Your task to perform on an android device: search for starred emails in the gmail app Image 0: 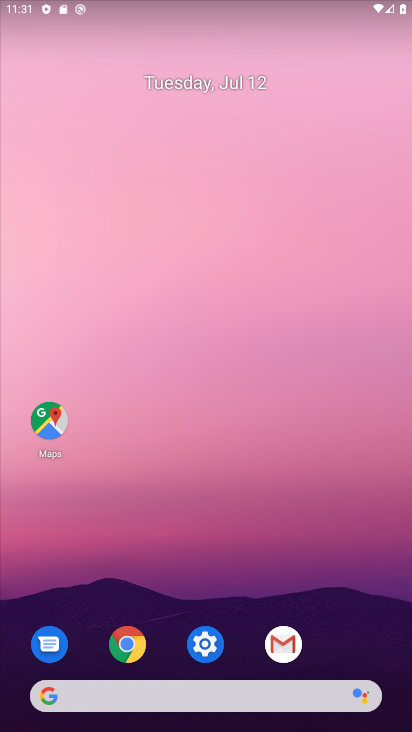
Step 0: click (299, 636)
Your task to perform on an android device: search for starred emails in the gmail app Image 1: 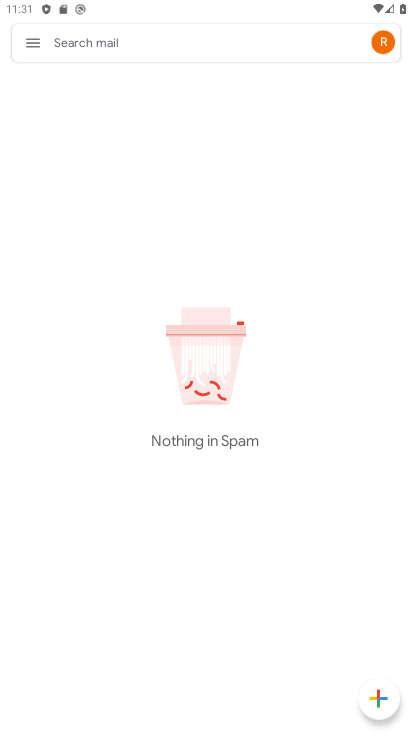
Step 1: click (32, 45)
Your task to perform on an android device: search for starred emails in the gmail app Image 2: 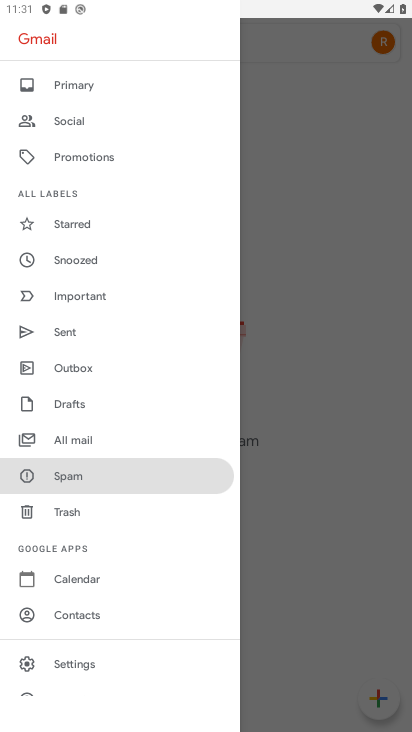
Step 2: click (104, 225)
Your task to perform on an android device: search for starred emails in the gmail app Image 3: 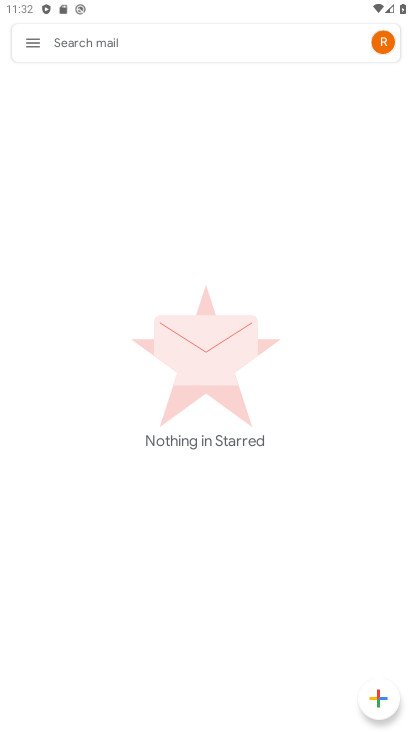
Step 3: task complete